Your task to perform on an android device: open sync settings in chrome Image 0: 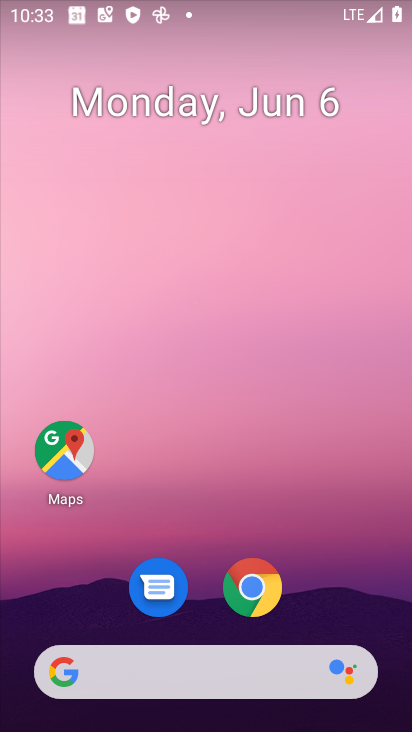
Step 0: drag from (190, 712) to (222, 43)
Your task to perform on an android device: open sync settings in chrome Image 1: 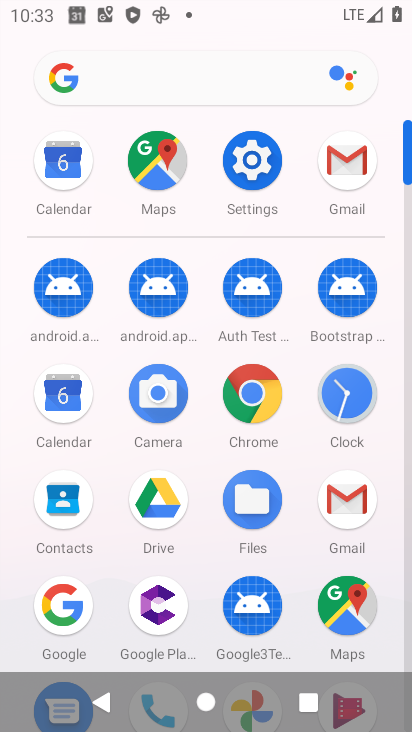
Step 1: click (254, 413)
Your task to perform on an android device: open sync settings in chrome Image 2: 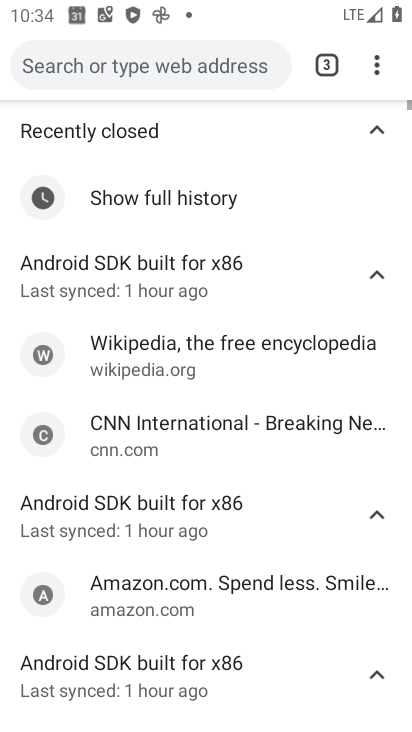
Step 2: click (376, 65)
Your task to perform on an android device: open sync settings in chrome Image 3: 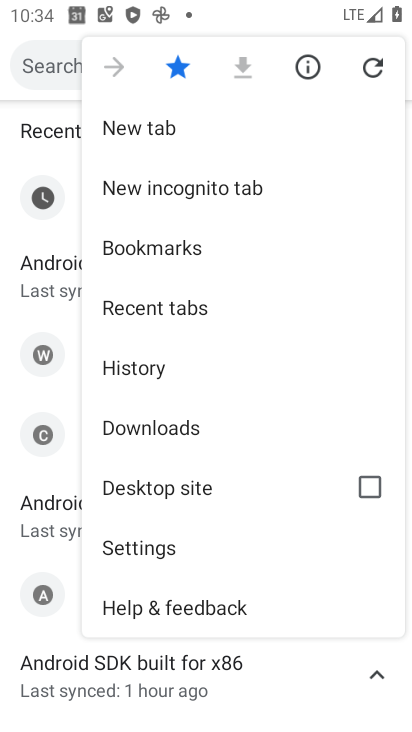
Step 3: click (168, 551)
Your task to perform on an android device: open sync settings in chrome Image 4: 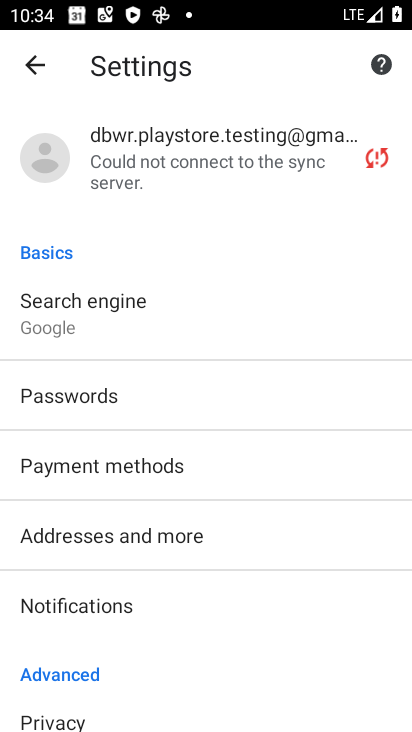
Step 4: click (199, 158)
Your task to perform on an android device: open sync settings in chrome Image 5: 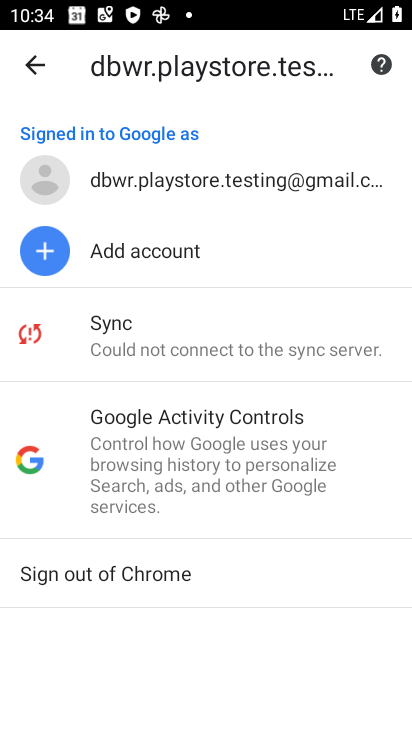
Step 5: task complete